Your task to perform on an android device: change timer sound Image 0: 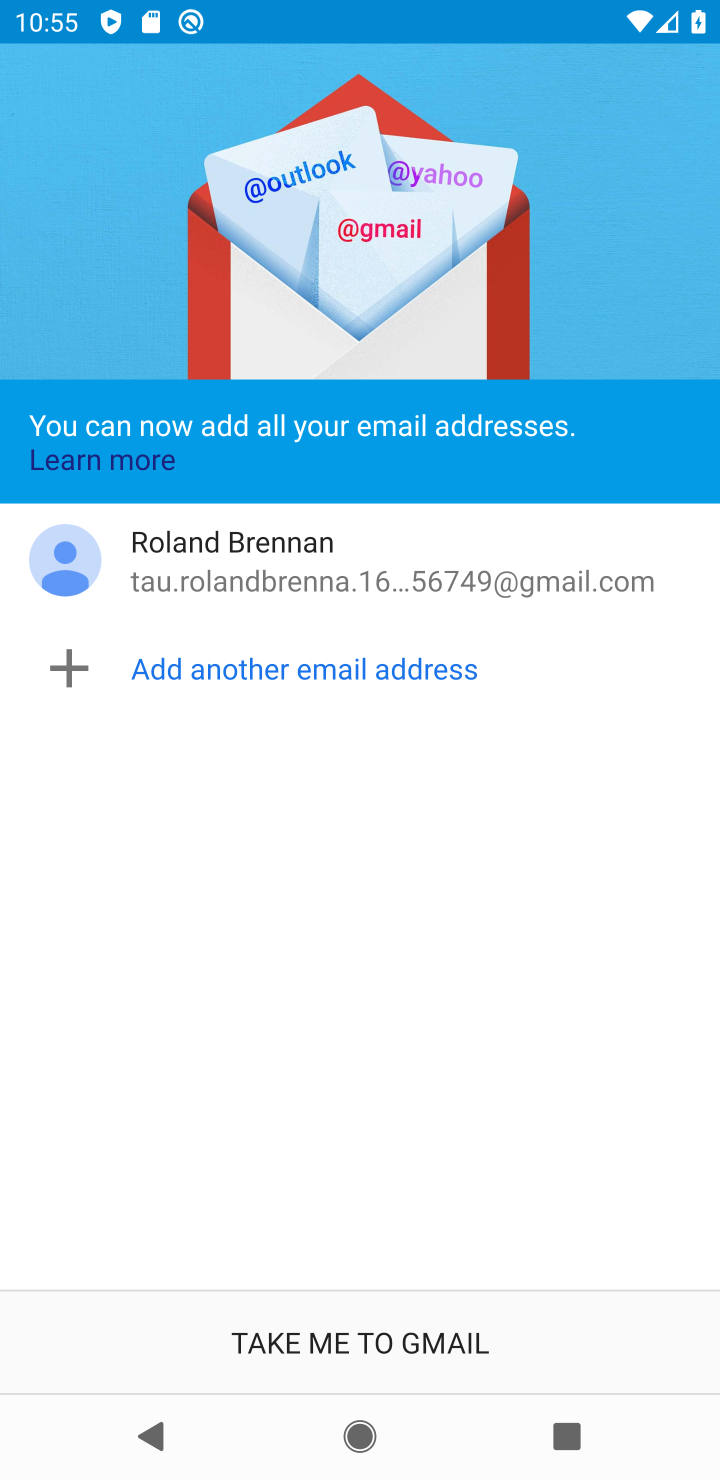
Step 0: press home button
Your task to perform on an android device: change timer sound Image 1: 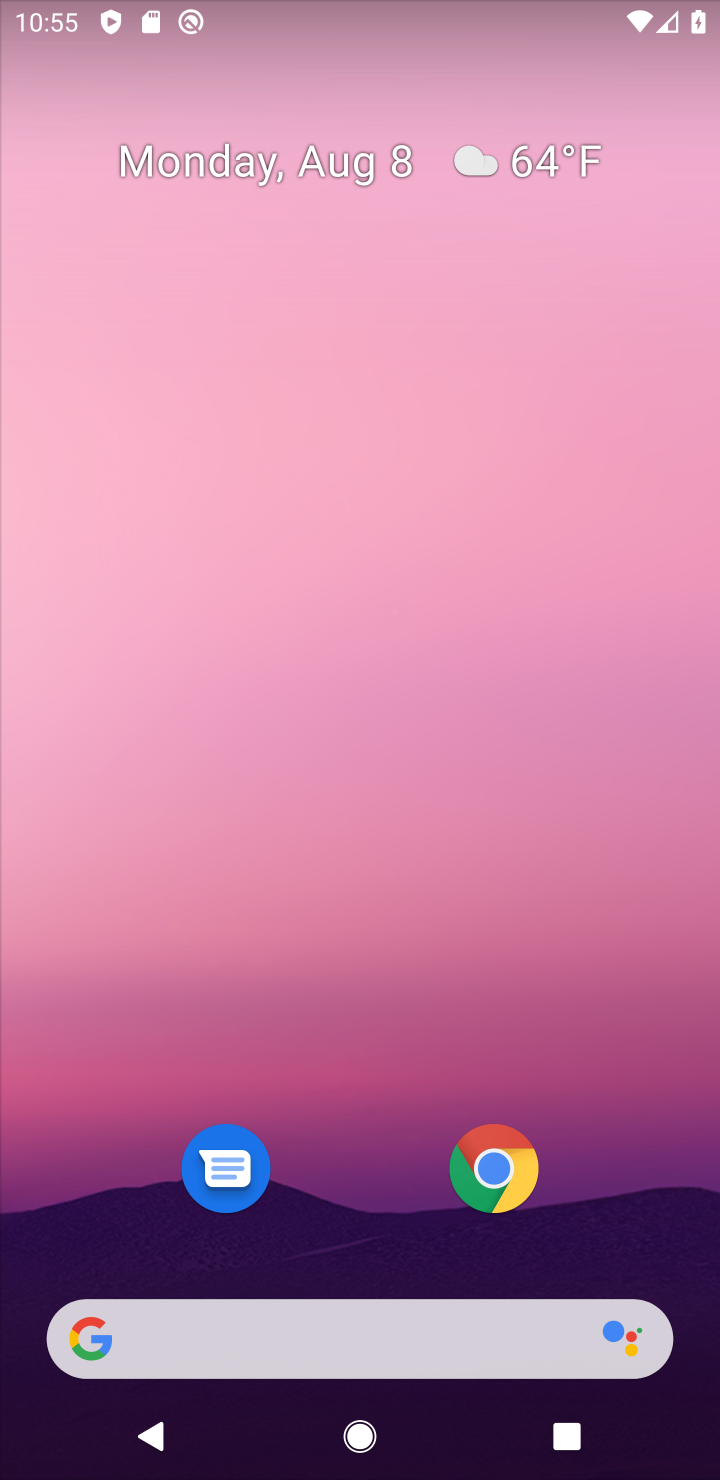
Step 1: drag from (77, 1281) to (657, 188)
Your task to perform on an android device: change timer sound Image 2: 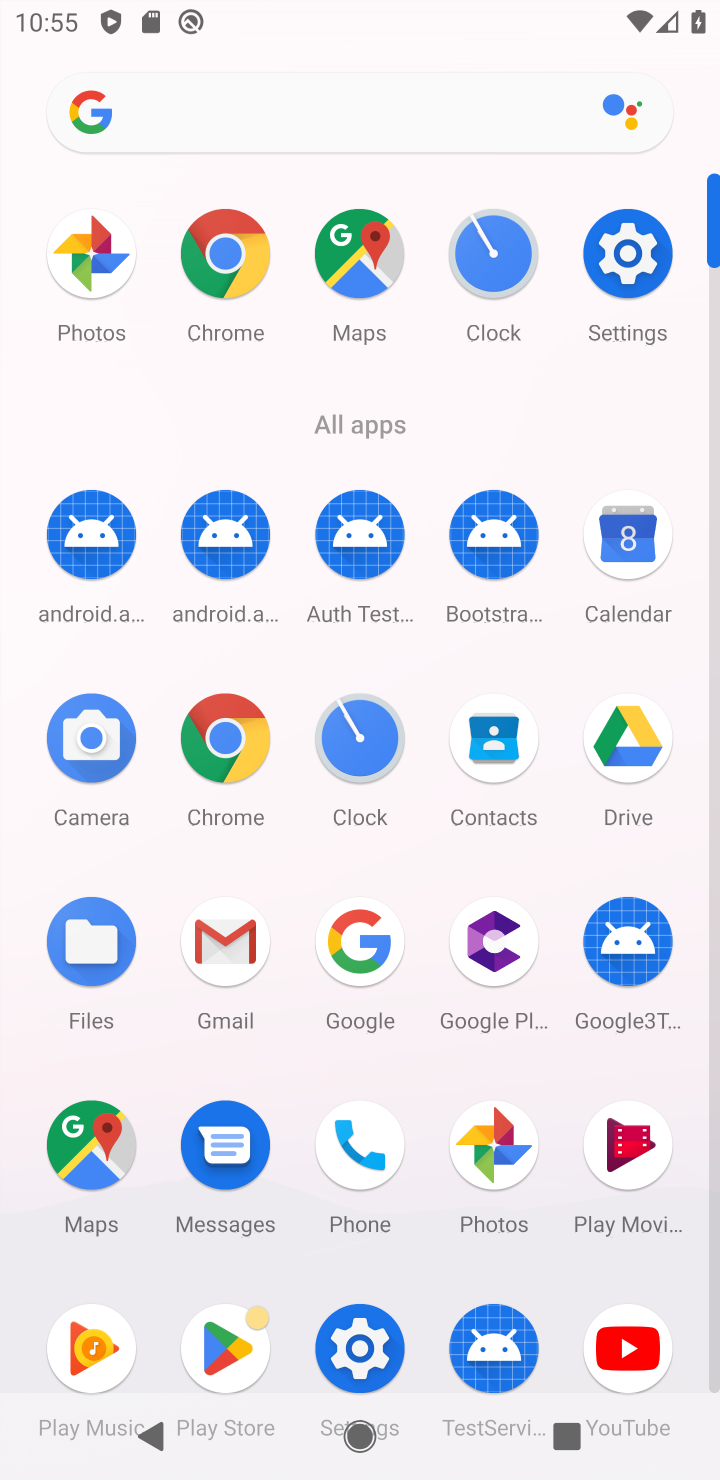
Step 2: click (455, 247)
Your task to perform on an android device: change timer sound Image 3: 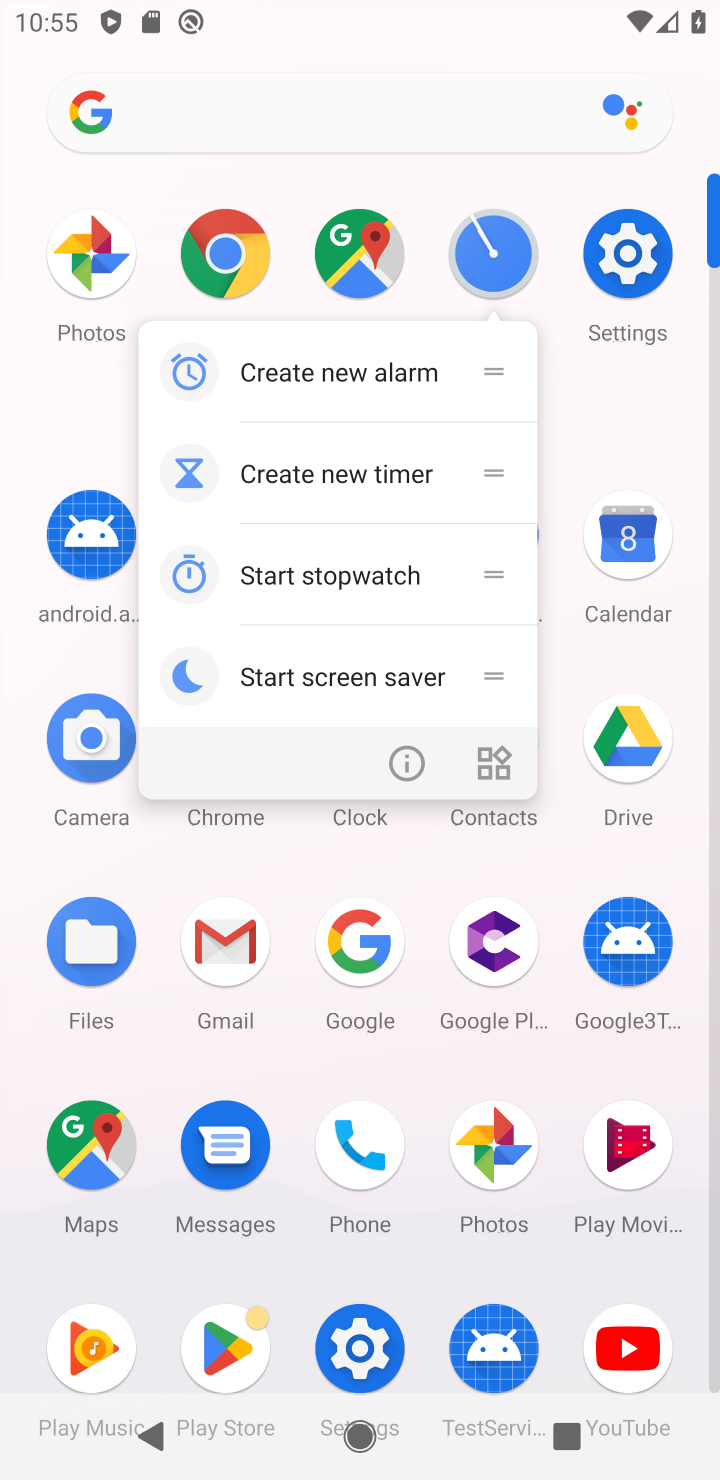
Step 3: click (468, 256)
Your task to perform on an android device: change timer sound Image 4: 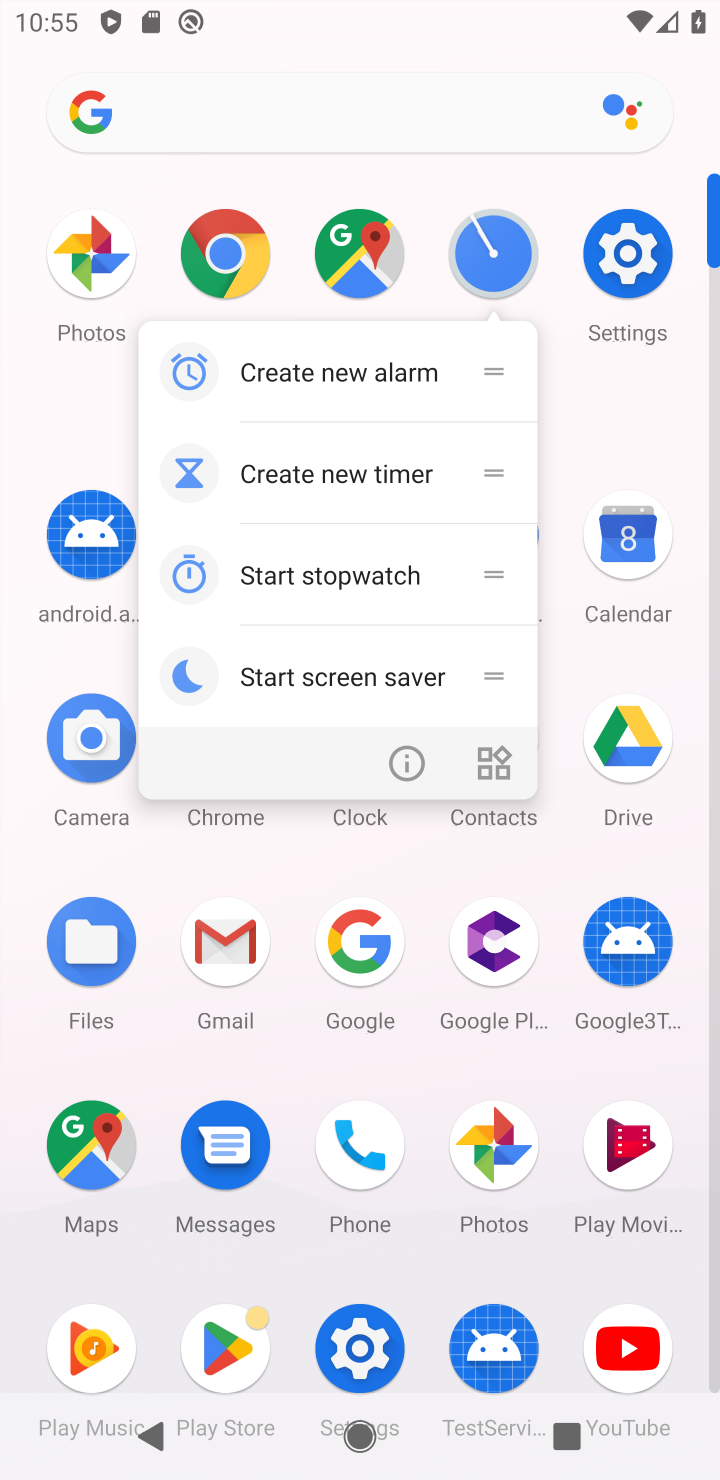
Step 4: click (490, 259)
Your task to perform on an android device: change timer sound Image 5: 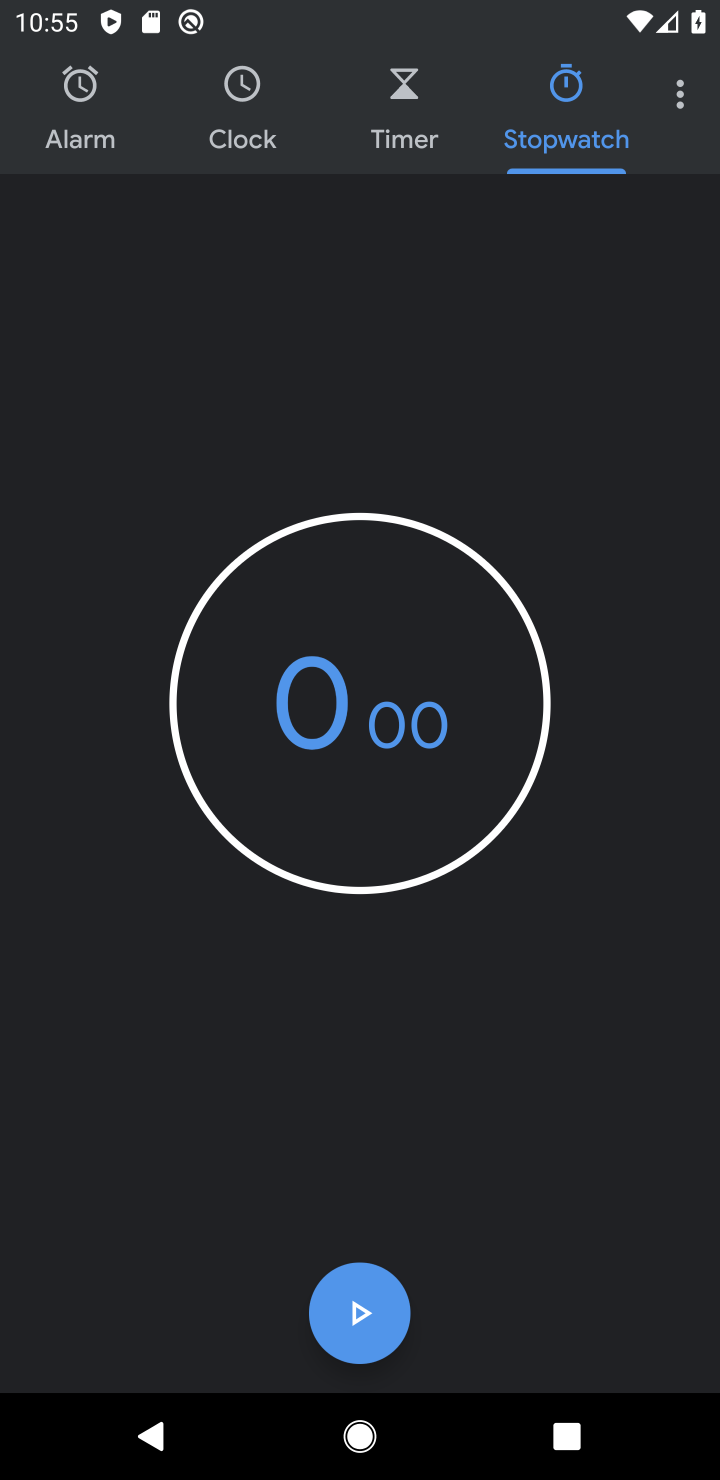
Step 5: click (683, 89)
Your task to perform on an android device: change timer sound Image 6: 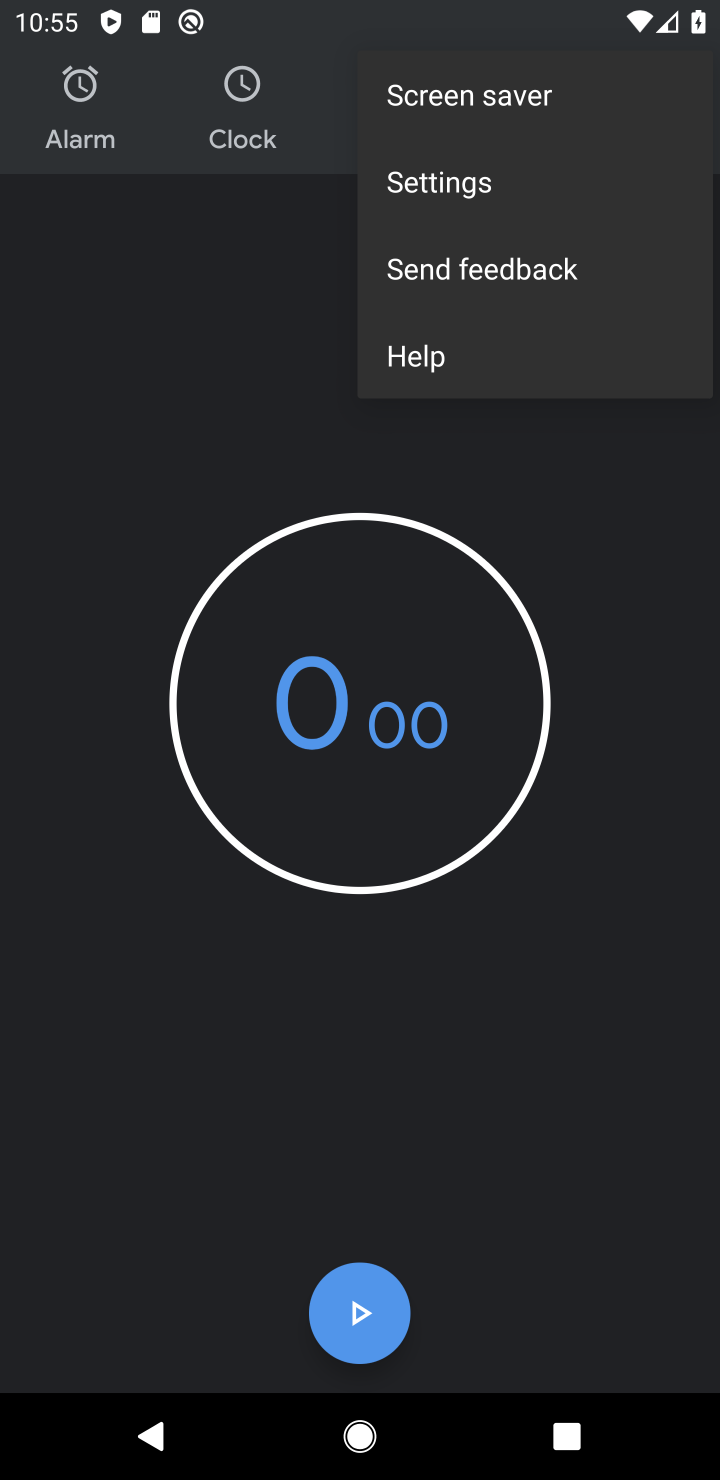
Step 6: click (477, 187)
Your task to perform on an android device: change timer sound Image 7: 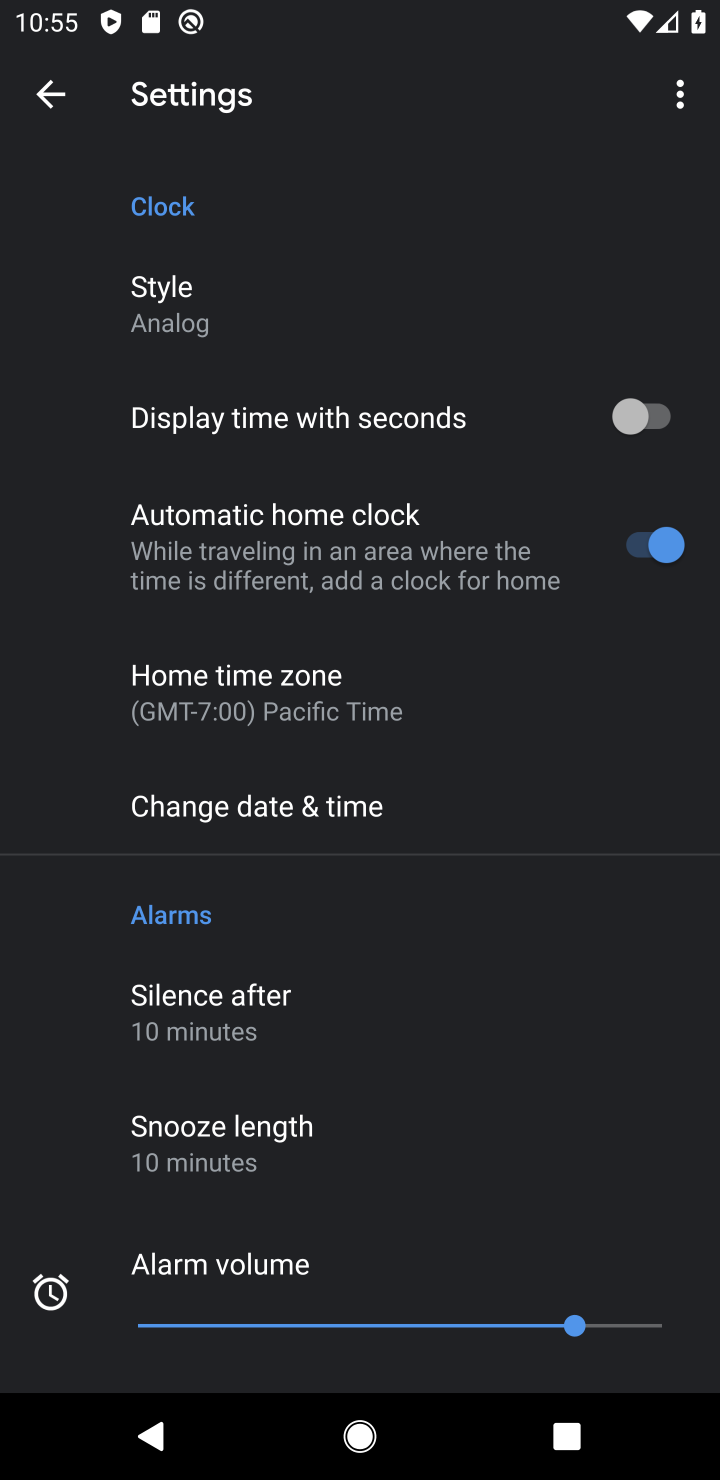
Step 7: drag from (14, 1147) to (400, 468)
Your task to perform on an android device: change timer sound Image 8: 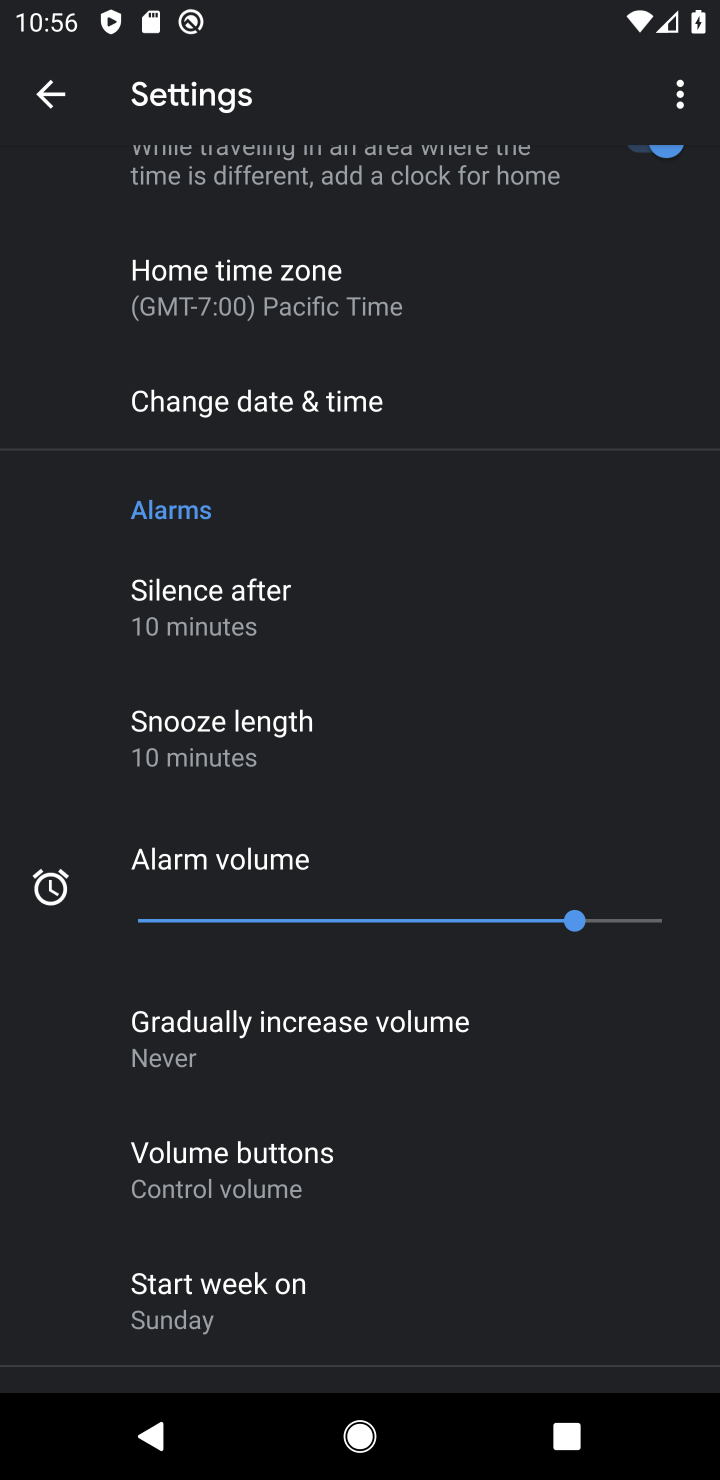
Step 8: drag from (89, 968) to (440, 241)
Your task to perform on an android device: change timer sound Image 9: 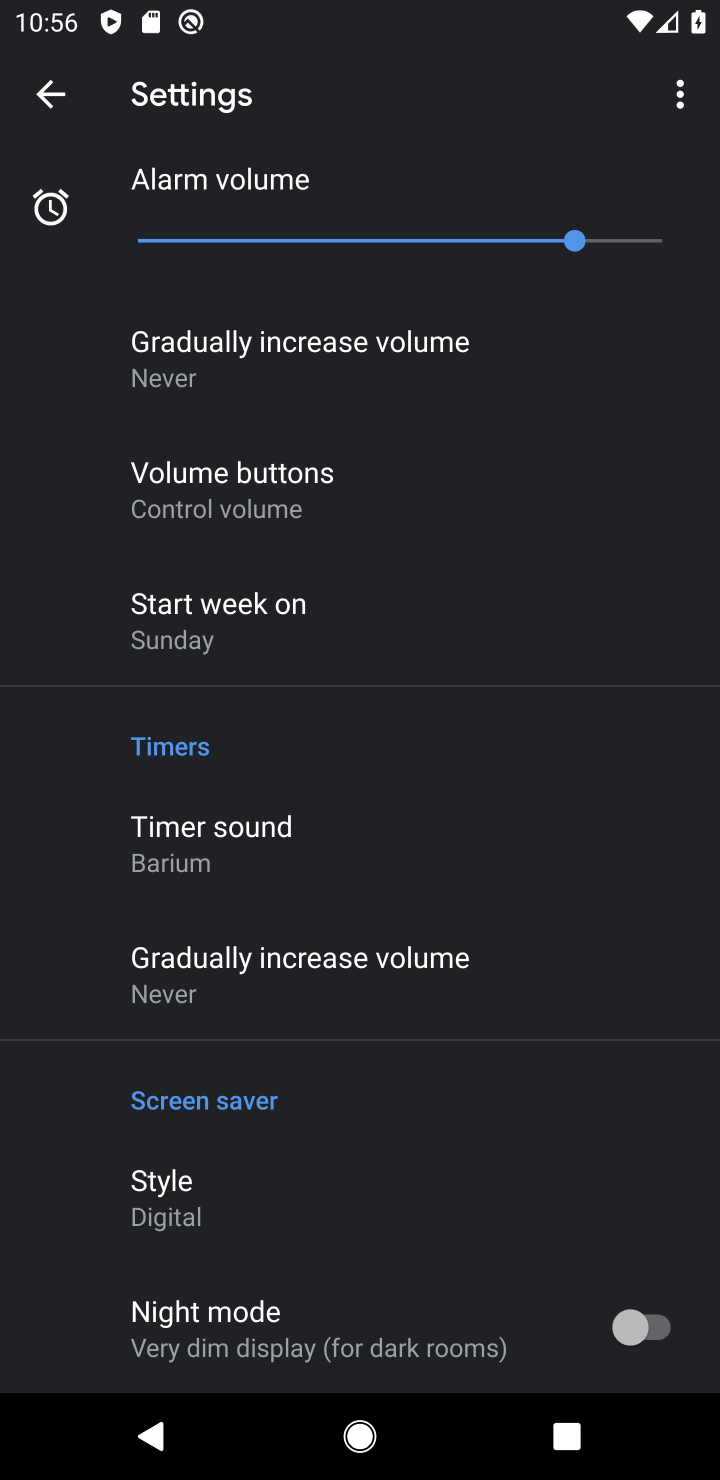
Step 9: click (253, 834)
Your task to perform on an android device: change timer sound Image 10: 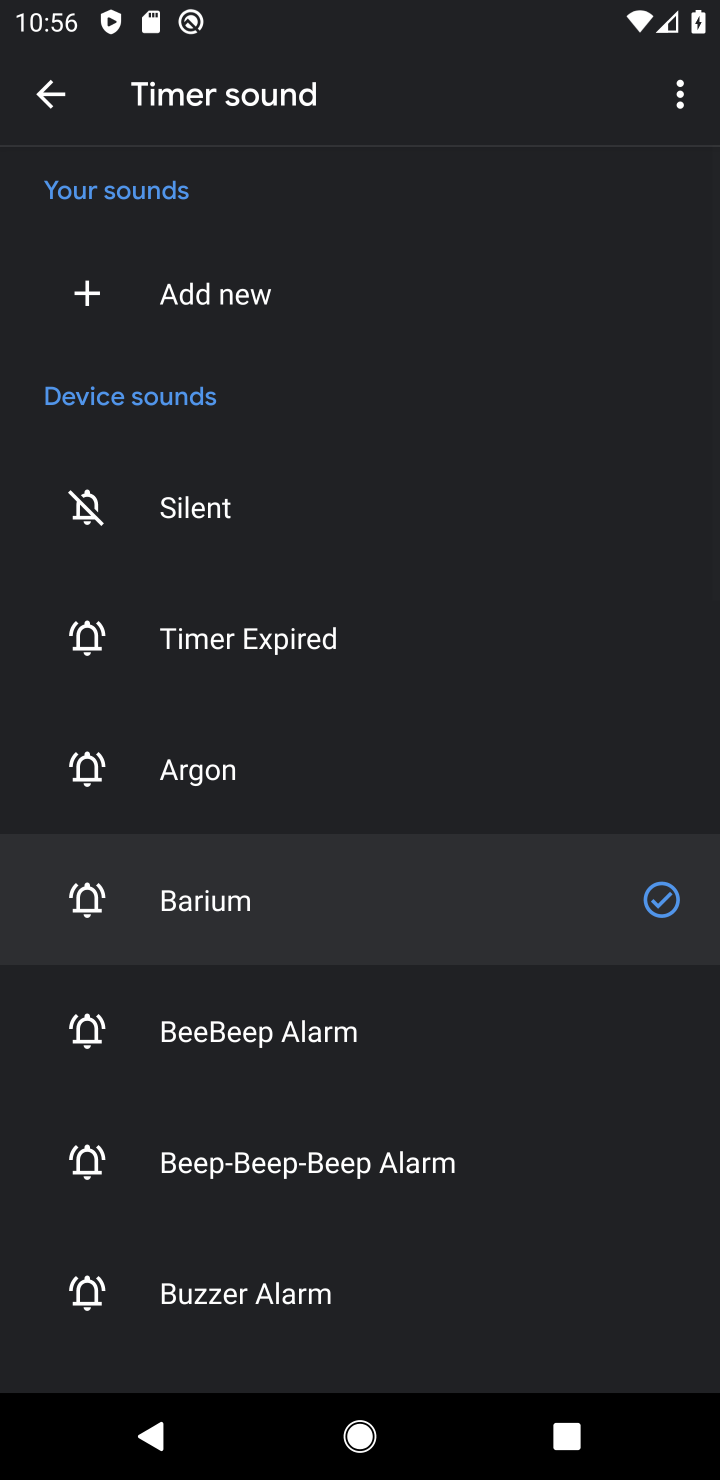
Step 10: click (262, 773)
Your task to perform on an android device: change timer sound Image 11: 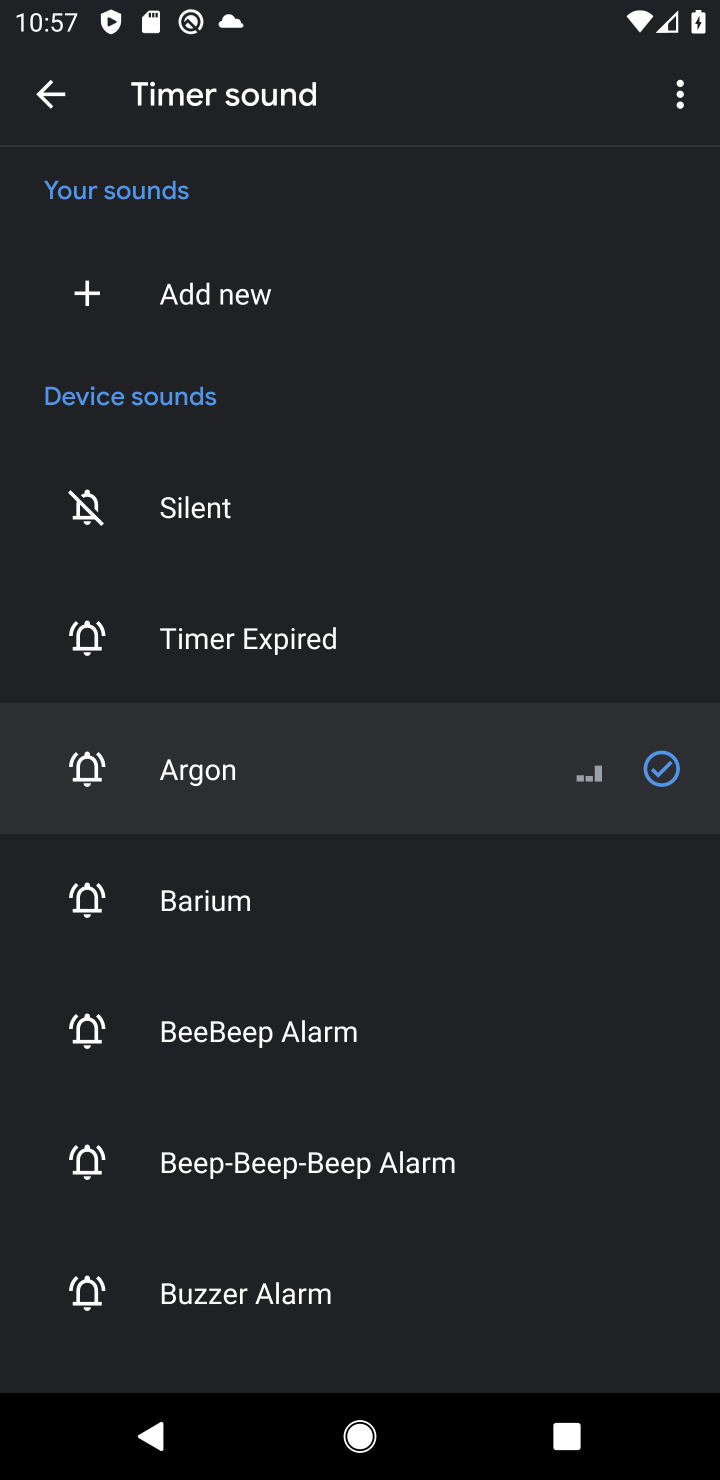
Step 11: task complete